Your task to perform on an android device: Open CNN.com Image 0: 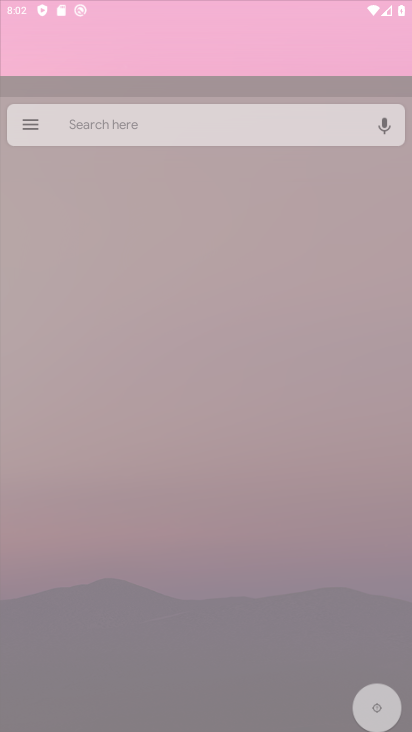
Step 0: press home button
Your task to perform on an android device: Open CNN.com Image 1: 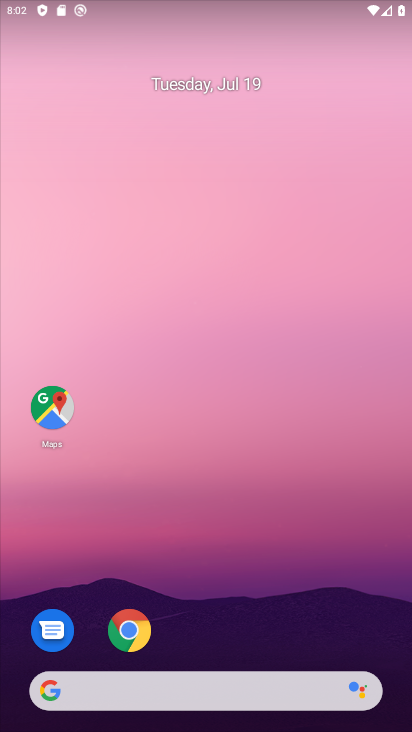
Step 1: drag from (266, 691) to (251, 190)
Your task to perform on an android device: Open CNN.com Image 2: 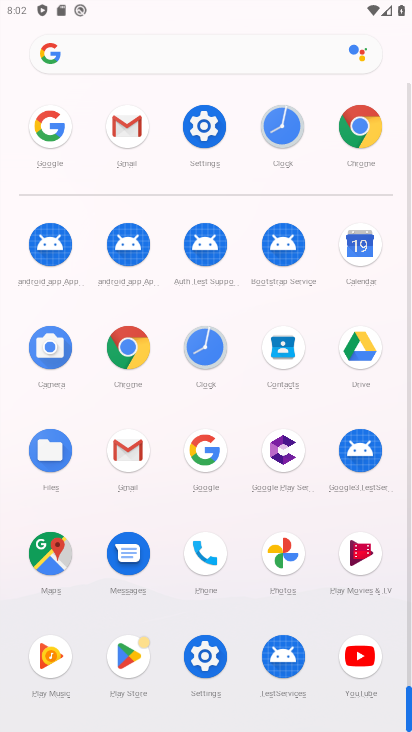
Step 2: click (136, 360)
Your task to perform on an android device: Open CNN.com Image 3: 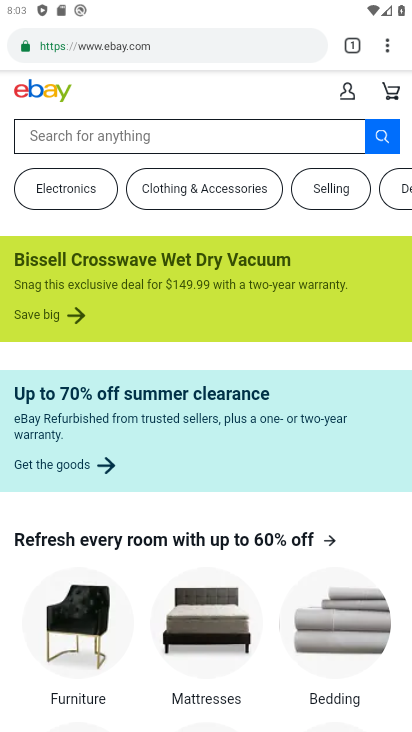
Step 3: click (198, 46)
Your task to perform on an android device: Open CNN.com Image 4: 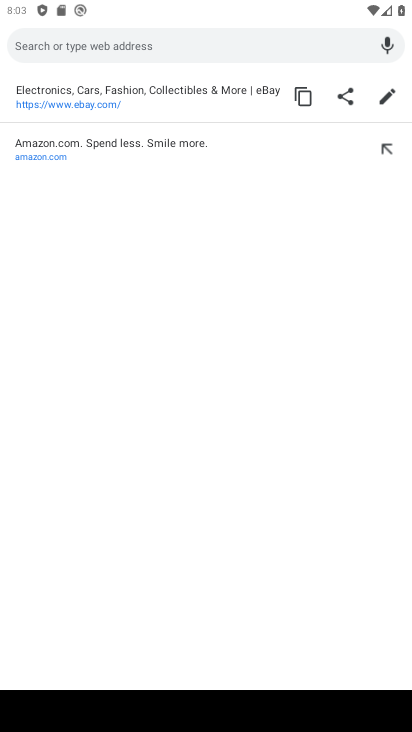
Step 4: type "cnn"
Your task to perform on an android device: Open CNN.com Image 5: 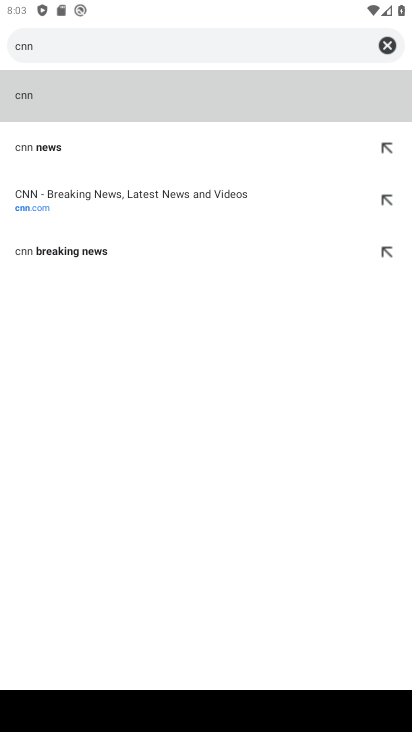
Step 5: click (126, 192)
Your task to perform on an android device: Open CNN.com Image 6: 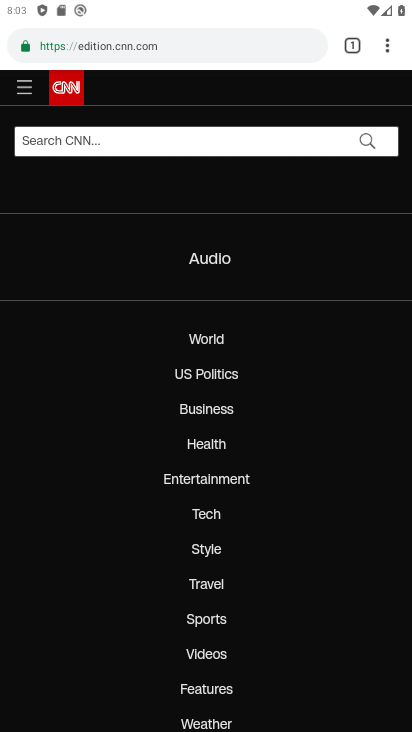
Step 6: task complete